Your task to perform on an android device: toggle notification dots Image 0: 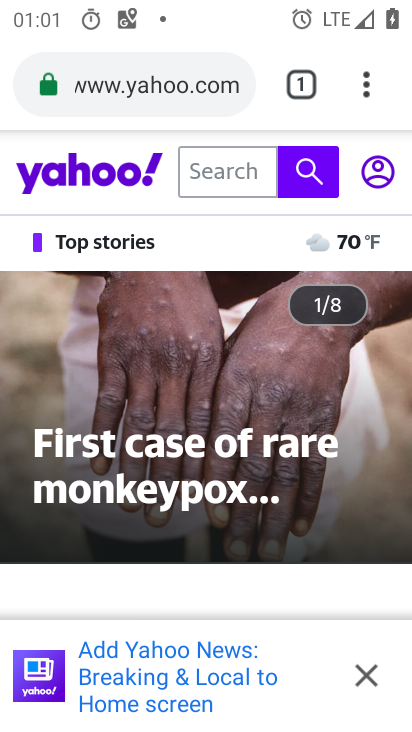
Step 0: press home button
Your task to perform on an android device: toggle notification dots Image 1: 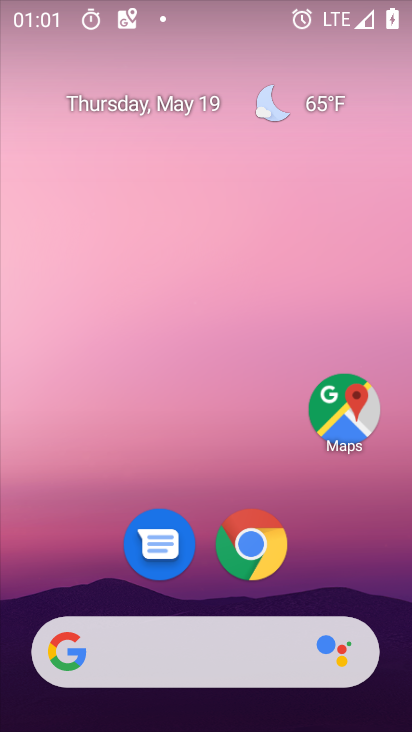
Step 1: drag from (360, 540) to (335, 118)
Your task to perform on an android device: toggle notification dots Image 2: 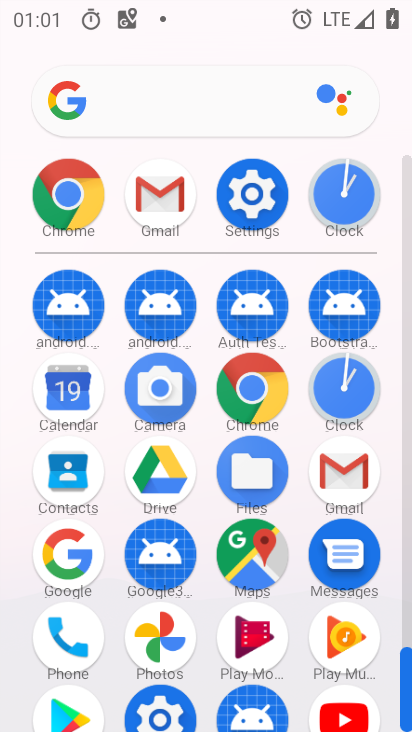
Step 2: click (271, 204)
Your task to perform on an android device: toggle notification dots Image 3: 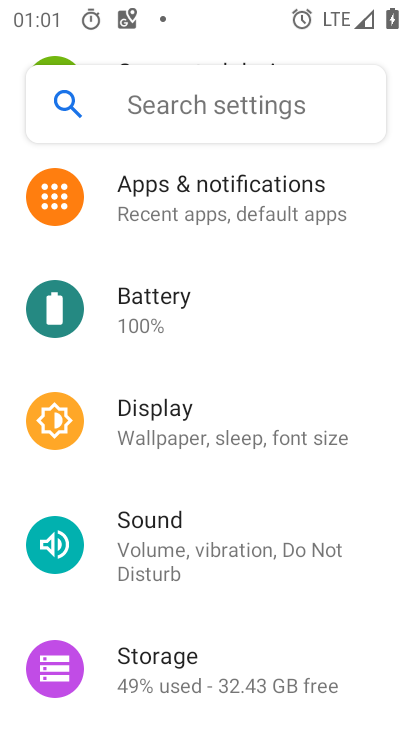
Step 3: drag from (365, 557) to (372, 386)
Your task to perform on an android device: toggle notification dots Image 4: 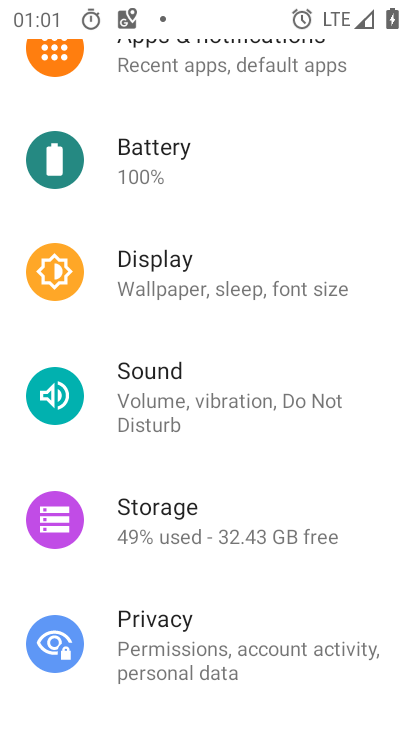
Step 4: drag from (344, 613) to (350, 443)
Your task to perform on an android device: toggle notification dots Image 5: 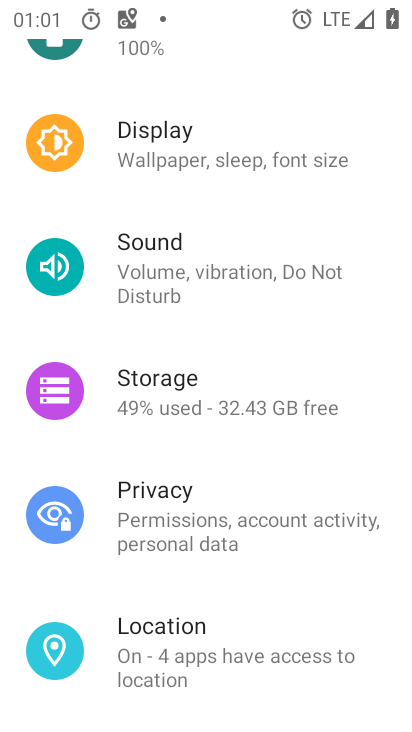
Step 5: drag from (332, 618) to (348, 468)
Your task to perform on an android device: toggle notification dots Image 6: 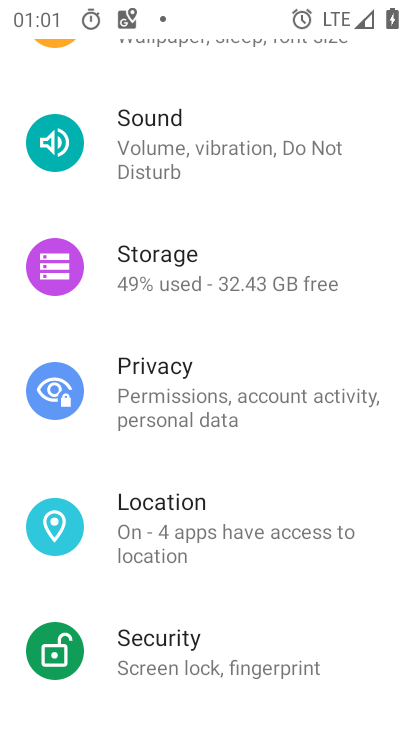
Step 6: drag from (324, 622) to (326, 501)
Your task to perform on an android device: toggle notification dots Image 7: 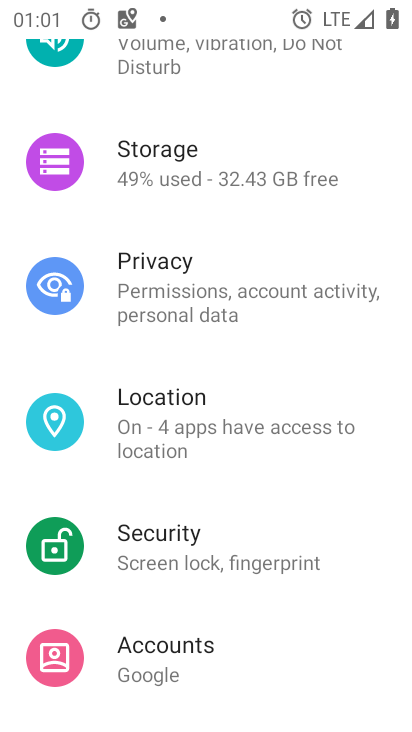
Step 7: drag from (322, 638) to (332, 484)
Your task to perform on an android device: toggle notification dots Image 8: 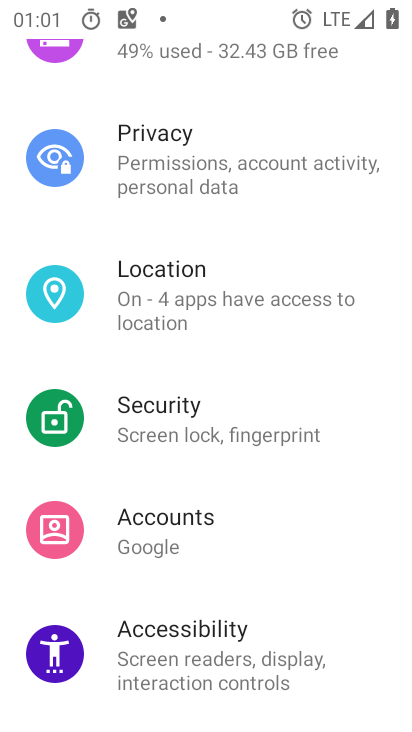
Step 8: drag from (346, 650) to (355, 504)
Your task to perform on an android device: toggle notification dots Image 9: 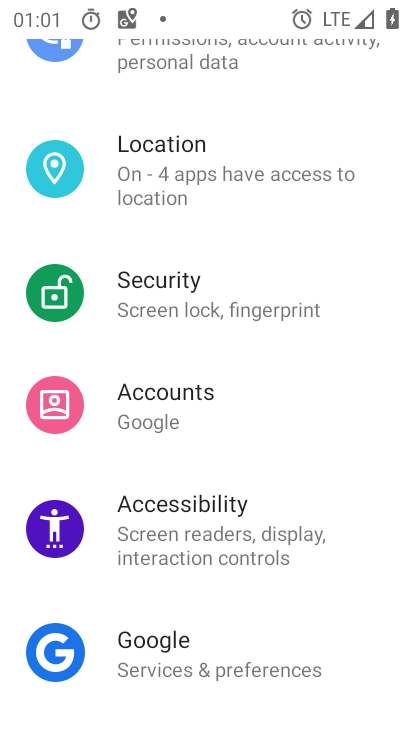
Step 9: drag from (347, 343) to (347, 533)
Your task to perform on an android device: toggle notification dots Image 10: 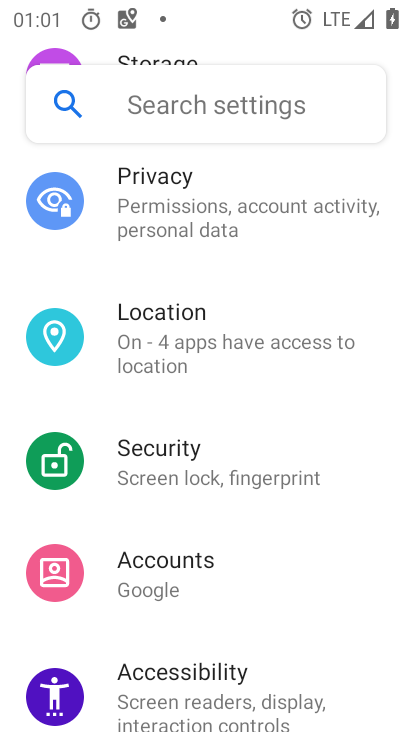
Step 10: drag from (360, 260) to (332, 473)
Your task to perform on an android device: toggle notification dots Image 11: 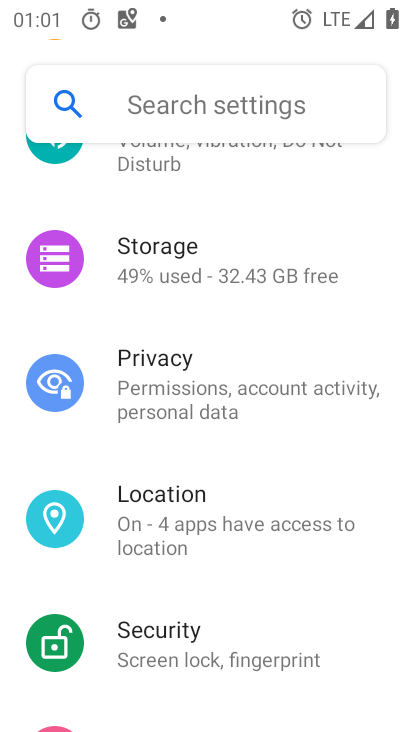
Step 11: drag from (354, 252) to (326, 471)
Your task to perform on an android device: toggle notification dots Image 12: 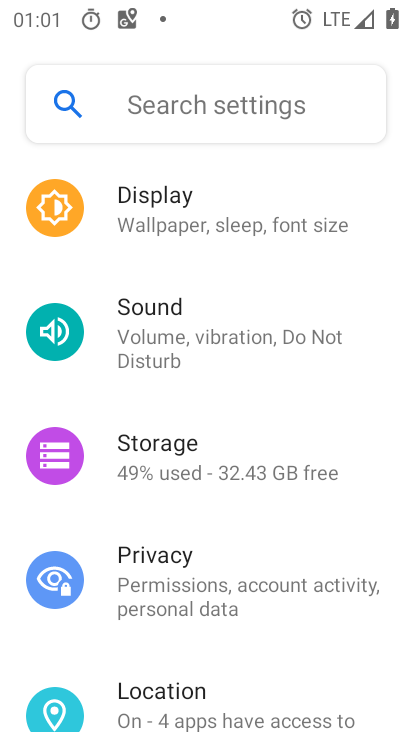
Step 12: drag from (336, 272) to (319, 439)
Your task to perform on an android device: toggle notification dots Image 13: 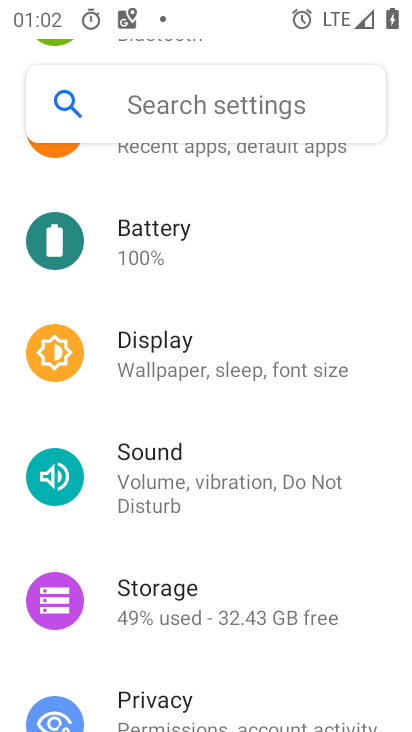
Step 13: drag from (331, 274) to (322, 481)
Your task to perform on an android device: toggle notification dots Image 14: 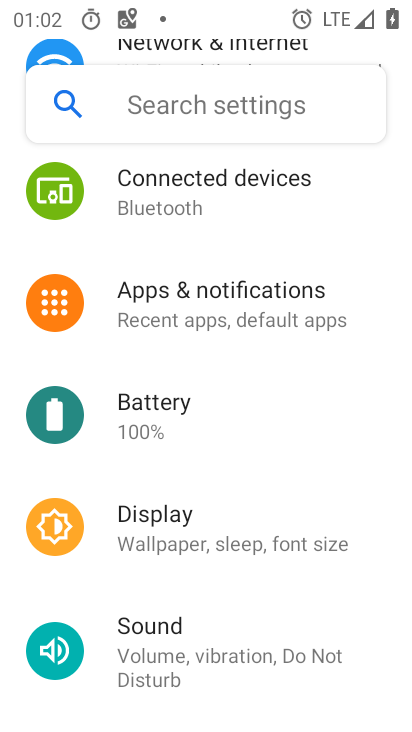
Step 14: drag from (355, 265) to (355, 415)
Your task to perform on an android device: toggle notification dots Image 15: 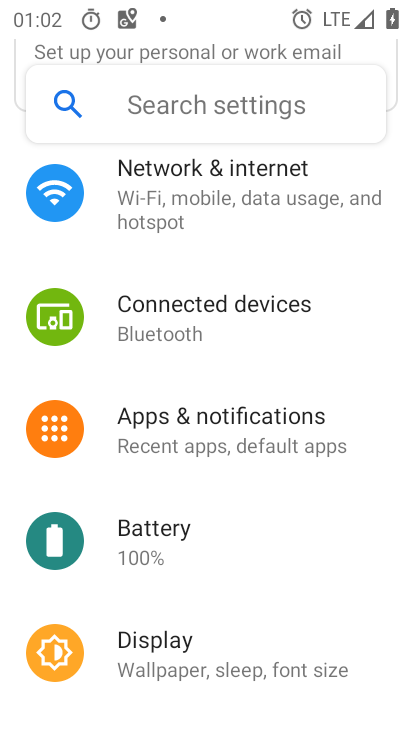
Step 15: drag from (313, 566) to (313, 471)
Your task to perform on an android device: toggle notification dots Image 16: 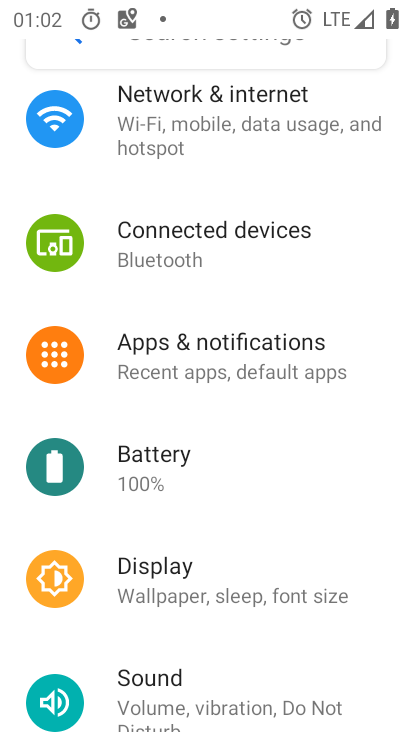
Step 16: click (310, 362)
Your task to perform on an android device: toggle notification dots Image 17: 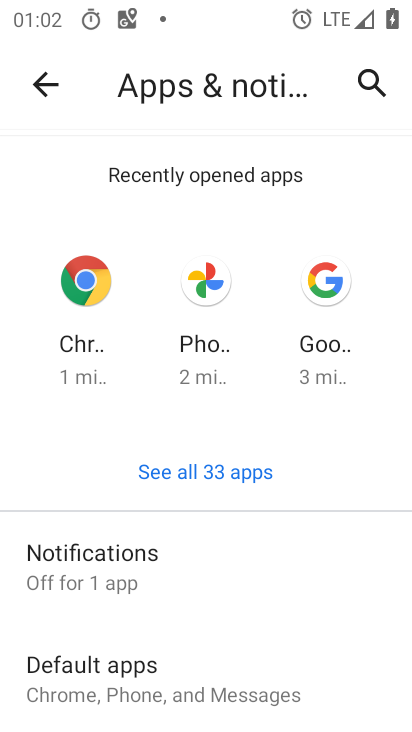
Step 17: click (180, 569)
Your task to perform on an android device: toggle notification dots Image 18: 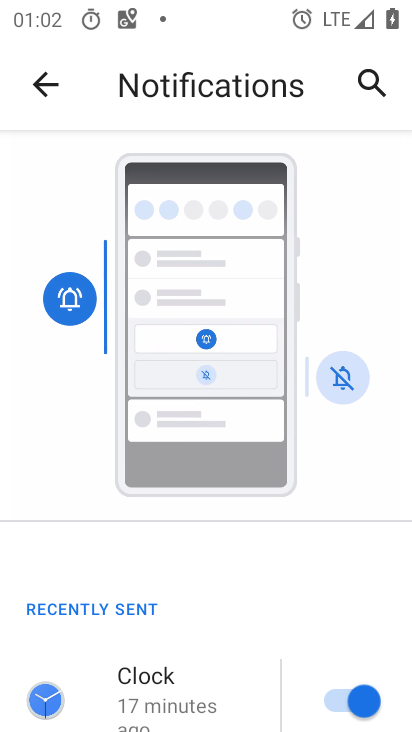
Step 18: drag from (347, 582) to (348, 335)
Your task to perform on an android device: toggle notification dots Image 19: 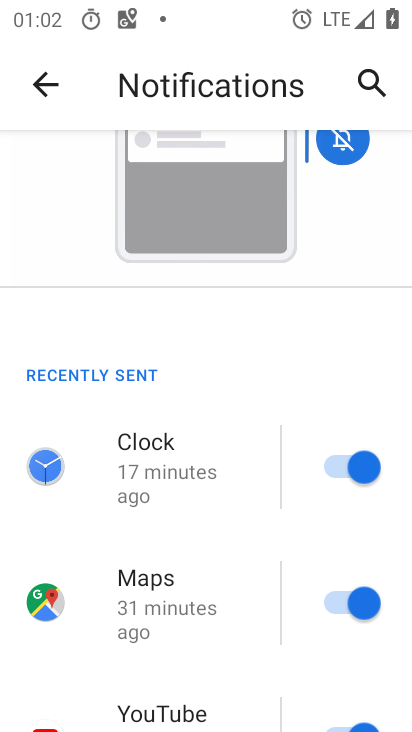
Step 19: drag from (238, 609) to (265, 370)
Your task to perform on an android device: toggle notification dots Image 20: 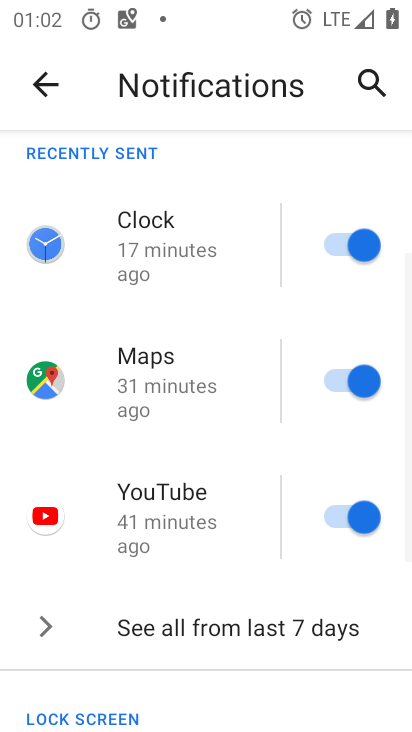
Step 20: drag from (236, 601) to (239, 393)
Your task to perform on an android device: toggle notification dots Image 21: 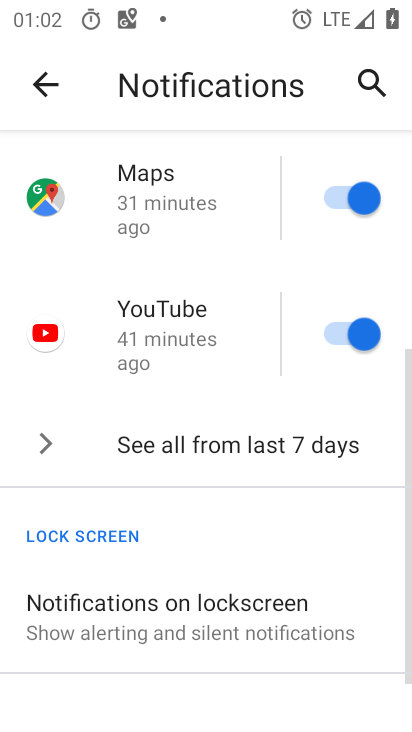
Step 21: drag from (208, 607) to (216, 405)
Your task to perform on an android device: toggle notification dots Image 22: 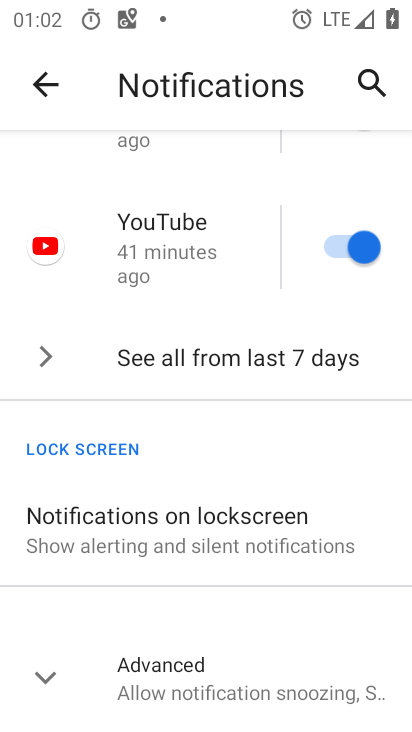
Step 22: click (213, 667)
Your task to perform on an android device: toggle notification dots Image 23: 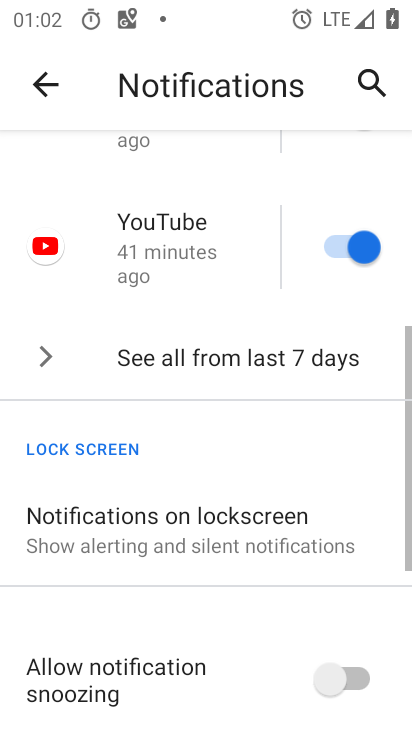
Step 23: drag from (257, 617) to (259, 394)
Your task to perform on an android device: toggle notification dots Image 24: 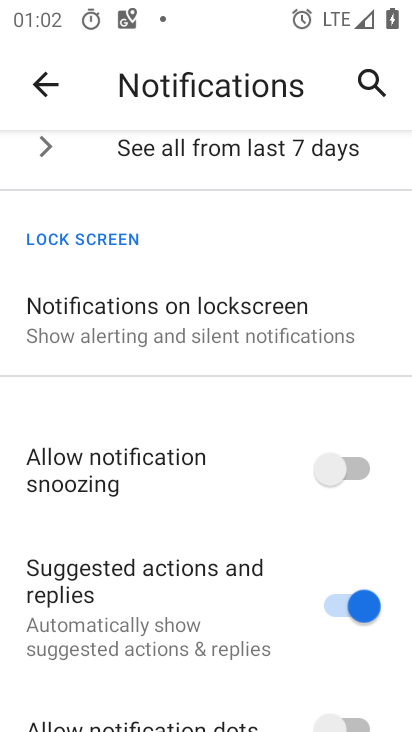
Step 24: drag from (254, 651) to (261, 374)
Your task to perform on an android device: toggle notification dots Image 25: 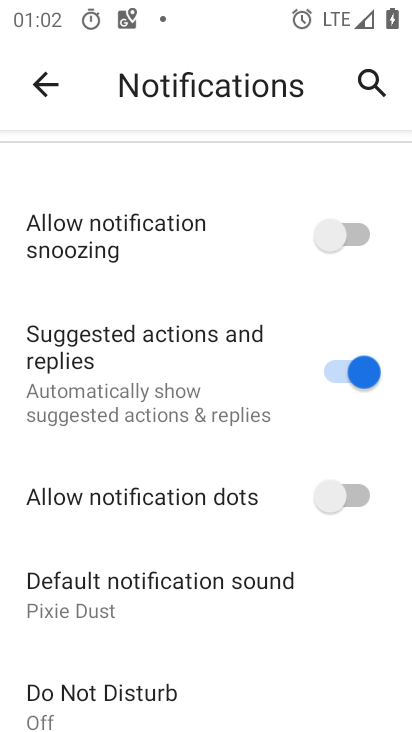
Step 25: drag from (248, 640) to (254, 440)
Your task to perform on an android device: toggle notification dots Image 26: 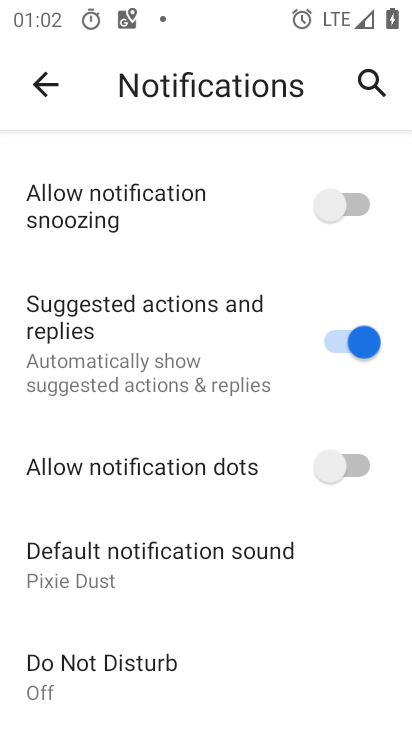
Step 26: click (327, 447)
Your task to perform on an android device: toggle notification dots Image 27: 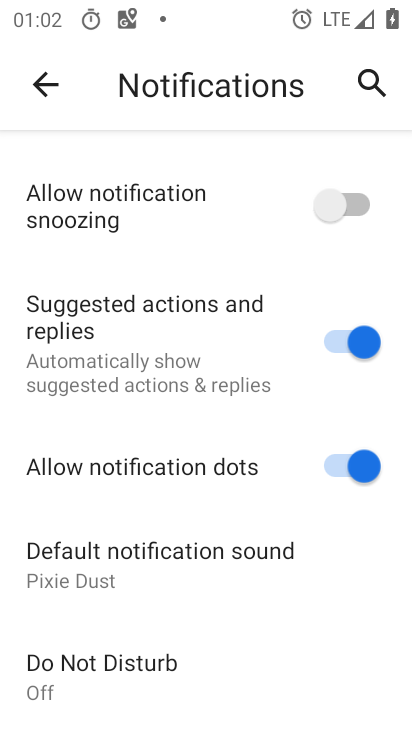
Step 27: task complete